Your task to perform on an android device: Who is the prime minister of Canada? Image 0: 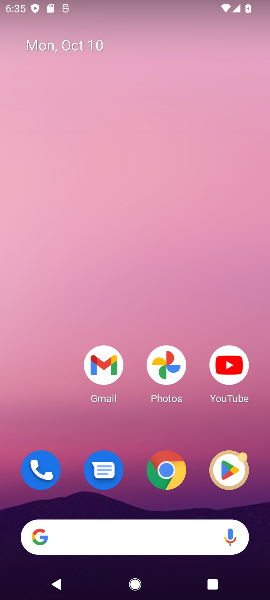
Step 0: click (174, 477)
Your task to perform on an android device: Who is the prime minister of Canada? Image 1: 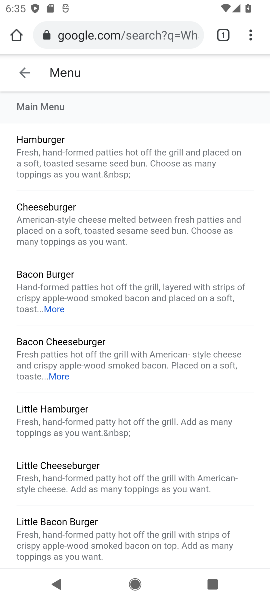
Step 1: click (97, 33)
Your task to perform on an android device: Who is the prime minister of Canada? Image 2: 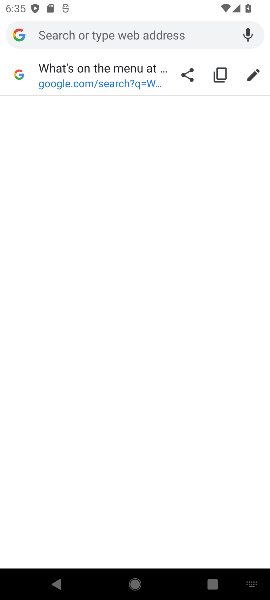
Step 2: type "Who is the prime minister of Canada?"
Your task to perform on an android device: Who is the prime minister of Canada? Image 3: 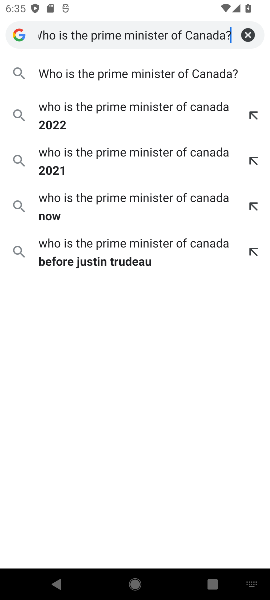
Step 3: click (204, 67)
Your task to perform on an android device: Who is the prime minister of Canada? Image 4: 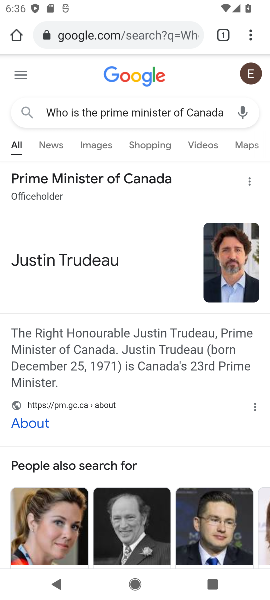
Step 4: task complete